Your task to perform on an android device: Go to calendar. Show me events next week Image 0: 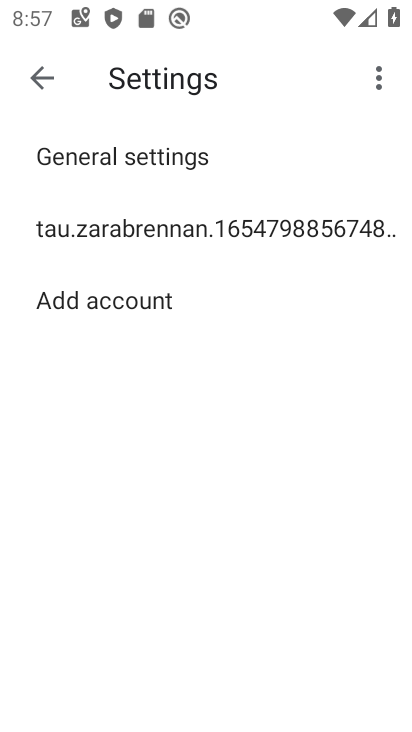
Step 0: press back button
Your task to perform on an android device: Go to calendar. Show me events next week Image 1: 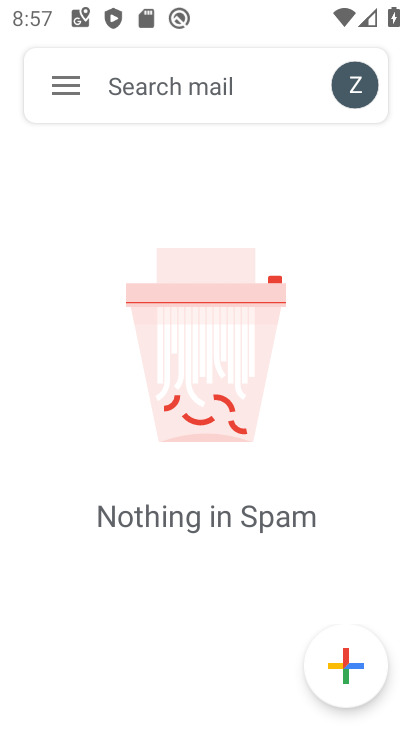
Step 1: press back button
Your task to perform on an android device: Go to calendar. Show me events next week Image 2: 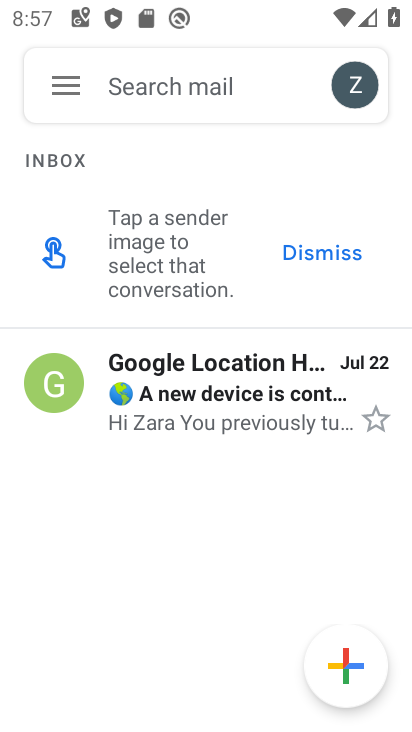
Step 2: press back button
Your task to perform on an android device: Go to calendar. Show me events next week Image 3: 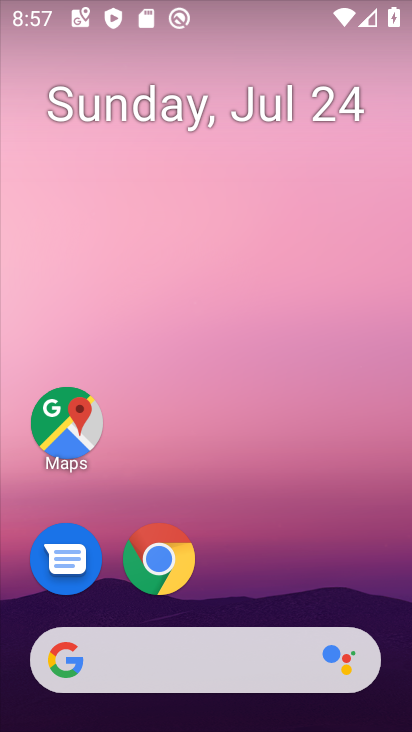
Step 3: drag from (245, 568) to (240, 5)
Your task to perform on an android device: Go to calendar. Show me events next week Image 4: 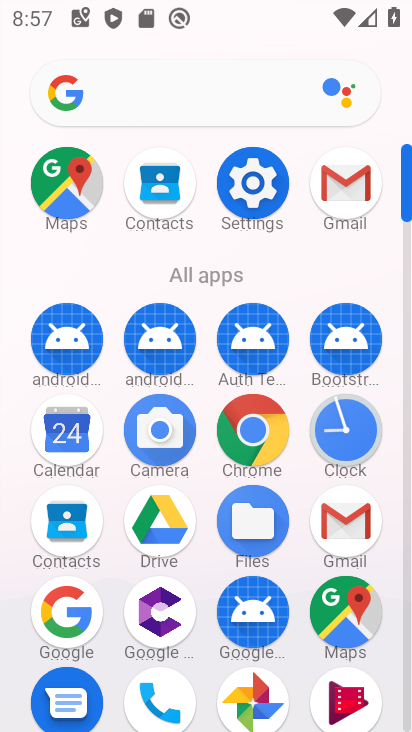
Step 4: click (63, 442)
Your task to perform on an android device: Go to calendar. Show me events next week Image 5: 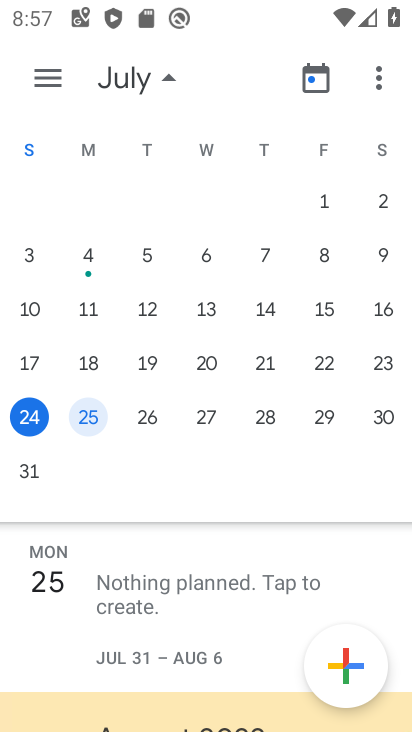
Step 5: click (163, 69)
Your task to perform on an android device: Go to calendar. Show me events next week Image 6: 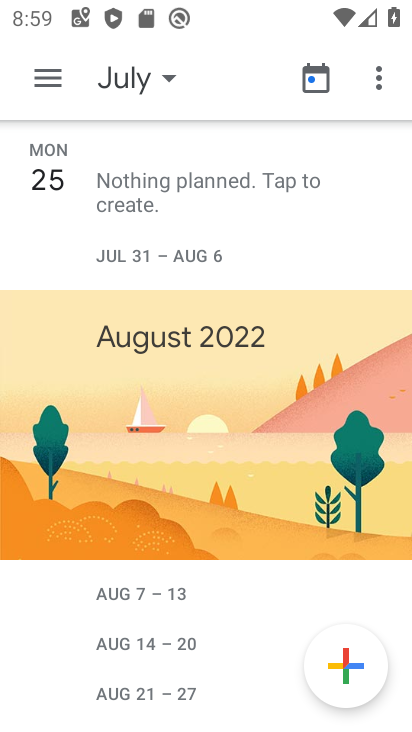
Step 6: click (174, 80)
Your task to perform on an android device: Go to calendar. Show me events next week Image 7: 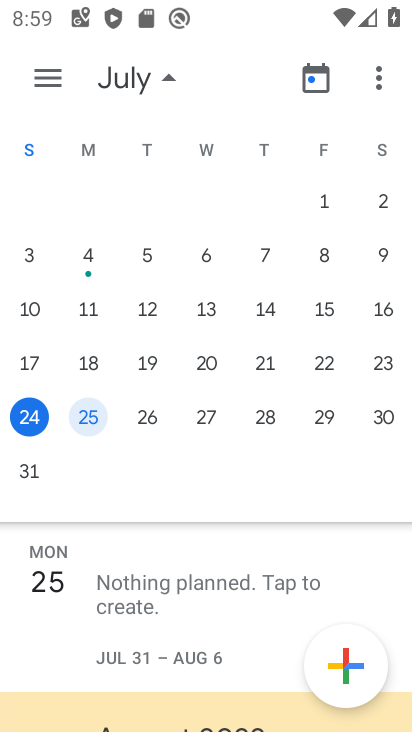
Step 7: drag from (392, 342) to (18, 354)
Your task to perform on an android device: Go to calendar. Show me events next week Image 8: 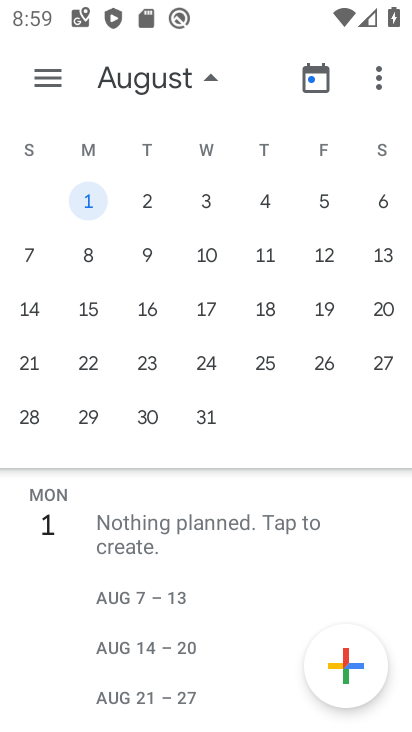
Step 8: click (82, 198)
Your task to perform on an android device: Go to calendar. Show me events next week Image 9: 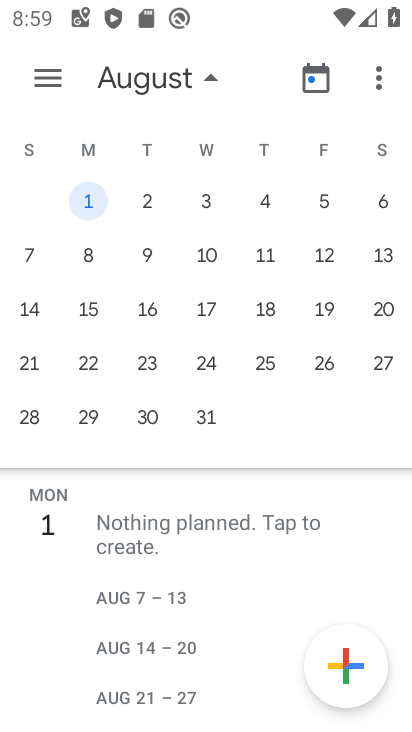
Step 9: task complete